Your task to perform on an android device: turn off notifications in google photos Image 0: 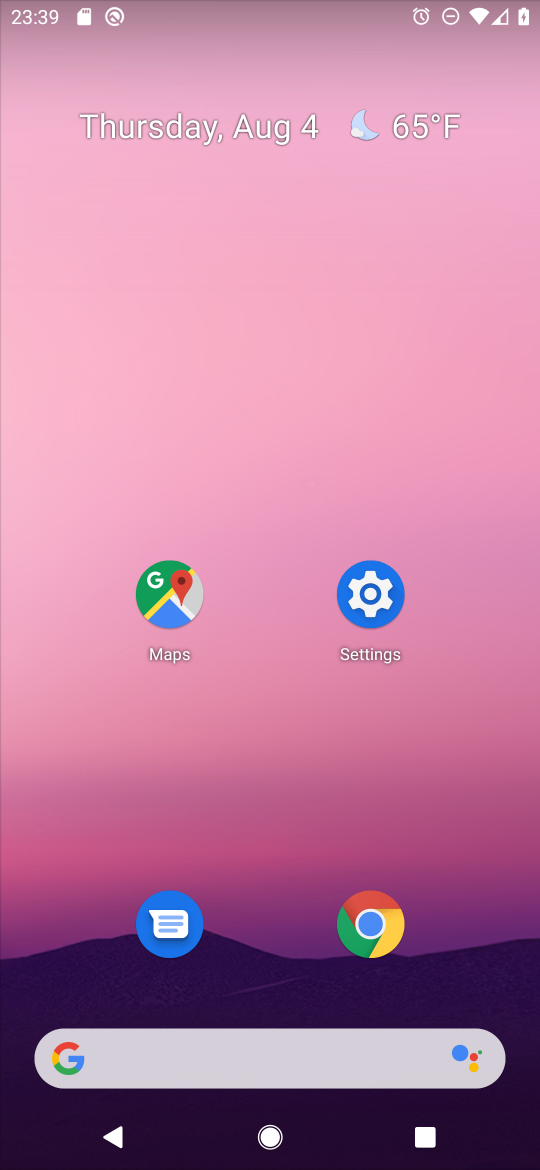
Step 0: press home button
Your task to perform on an android device: turn off notifications in google photos Image 1: 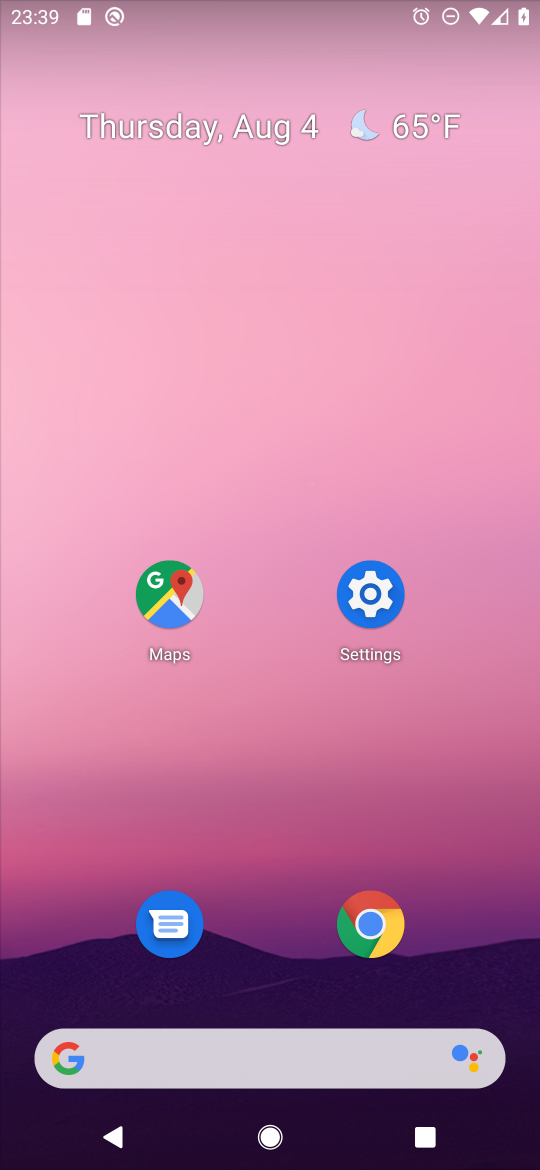
Step 1: drag from (276, 1052) to (462, 35)
Your task to perform on an android device: turn off notifications in google photos Image 2: 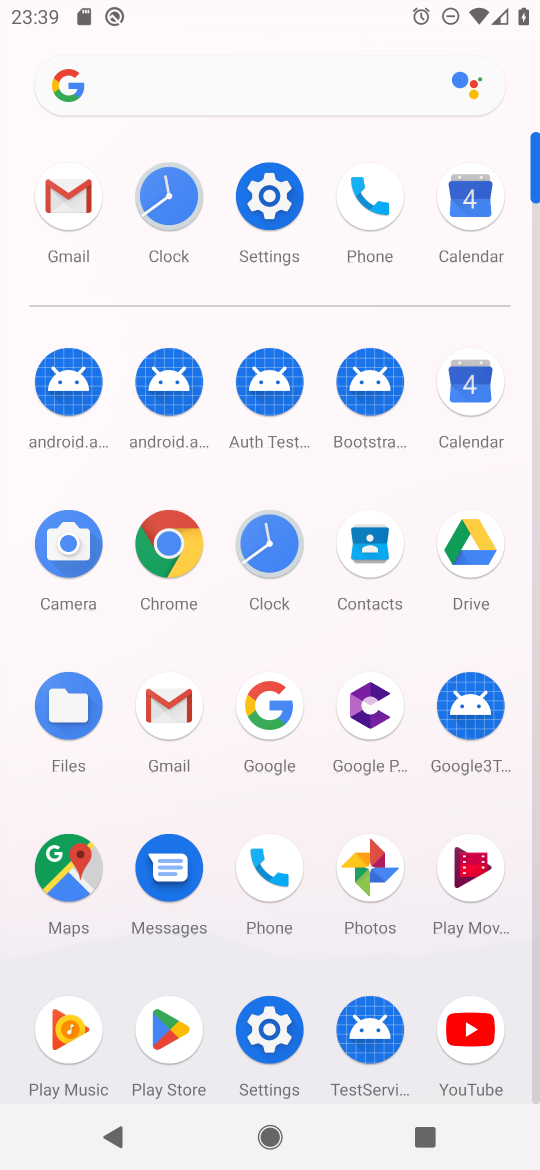
Step 2: click (364, 872)
Your task to perform on an android device: turn off notifications in google photos Image 3: 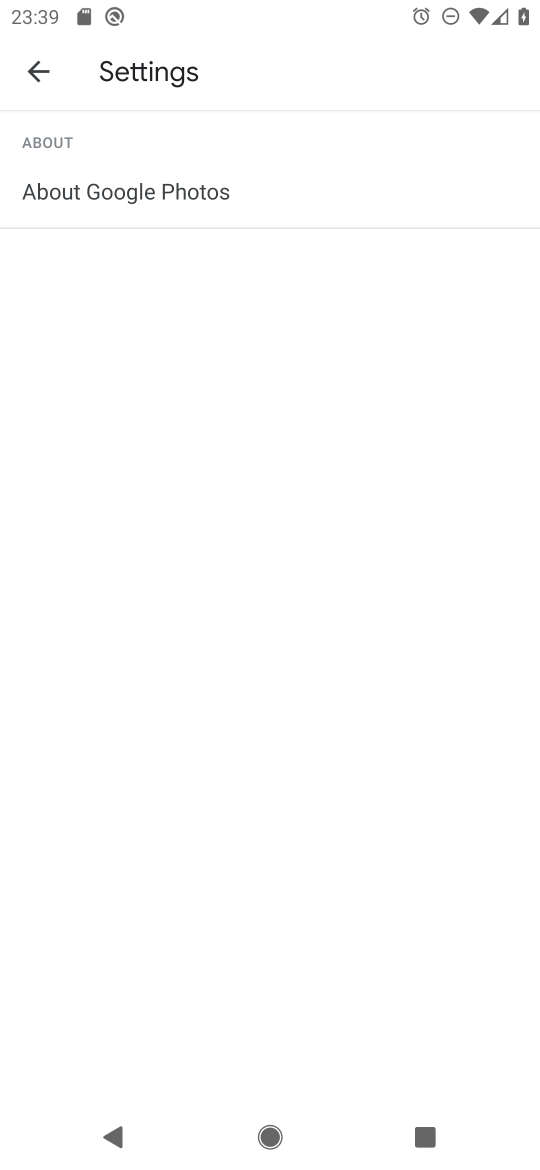
Step 3: click (41, 66)
Your task to perform on an android device: turn off notifications in google photos Image 4: 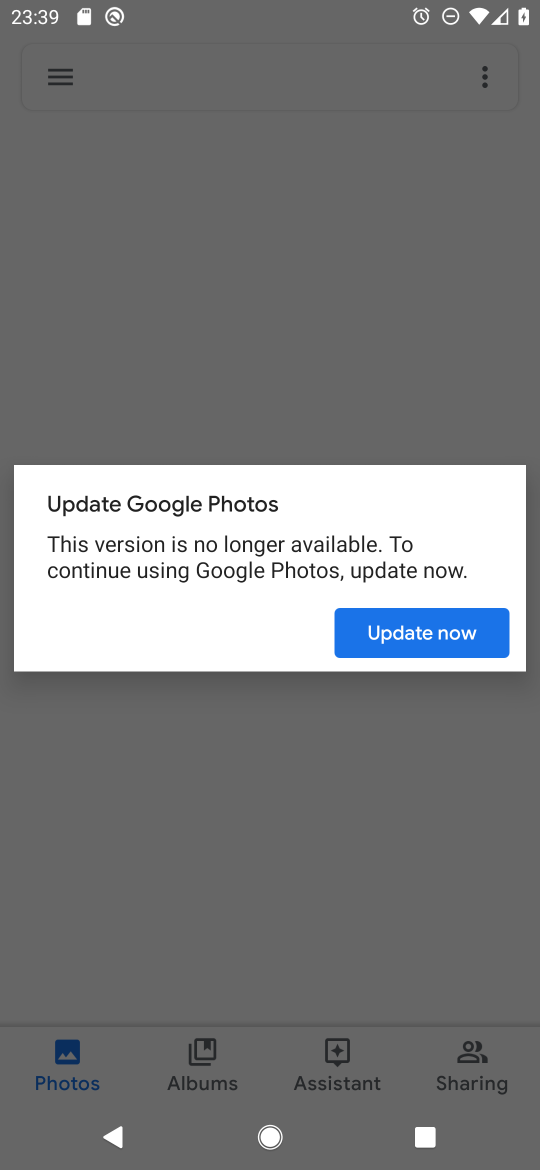
Step 4: click (380, 645)
Your task to perform on an android device: turn off notifications in google photos Image 5: 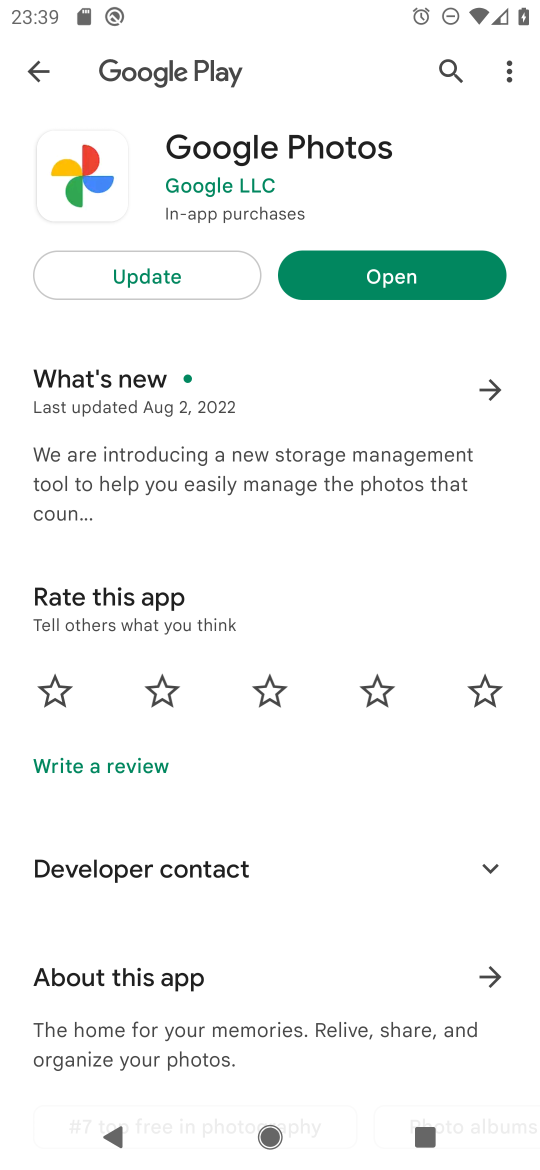
Step 5: click (173, 266)
Your task to perform on an android device: turn off notifications in google photos Image 6: 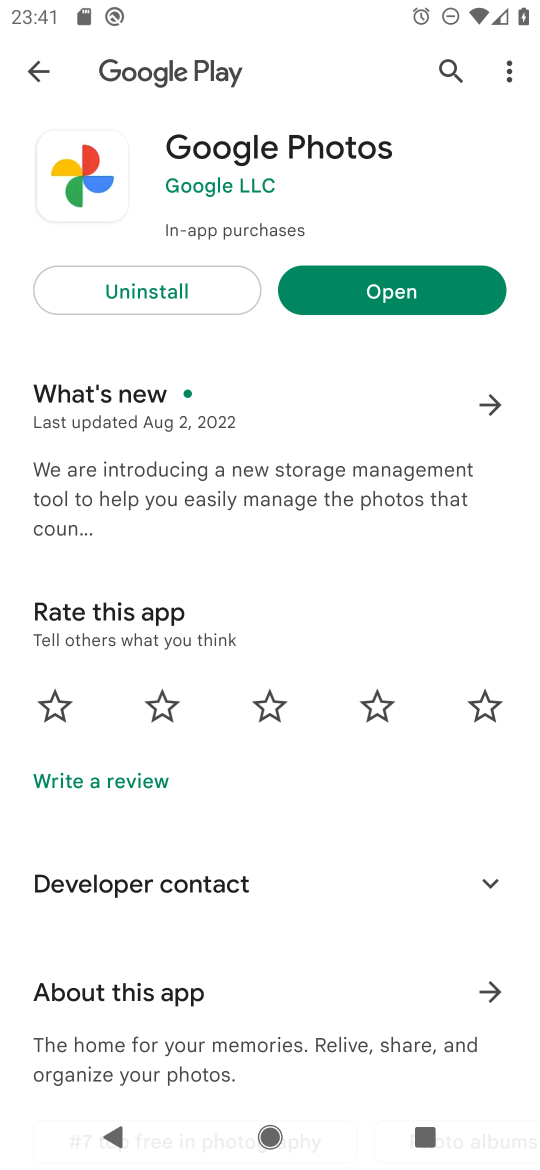
Step 6: click (423, 277)
Your task to perform on an android device: turn off notifications in google photos Image 7: 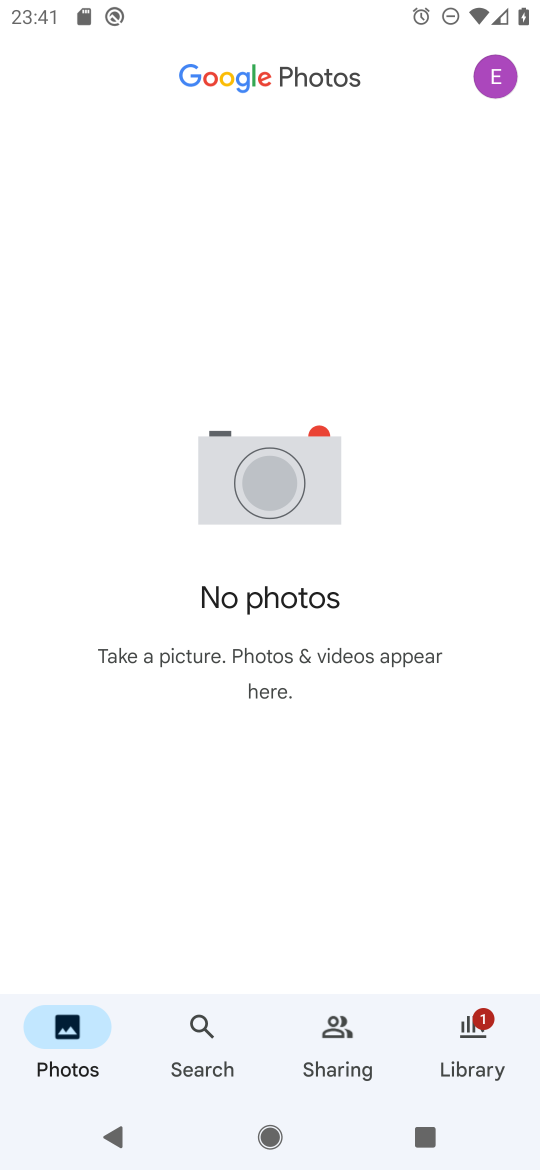
Step 7: click (499, 78)
Your task to perform on an android device: turn off notifications in google photos Image 8: 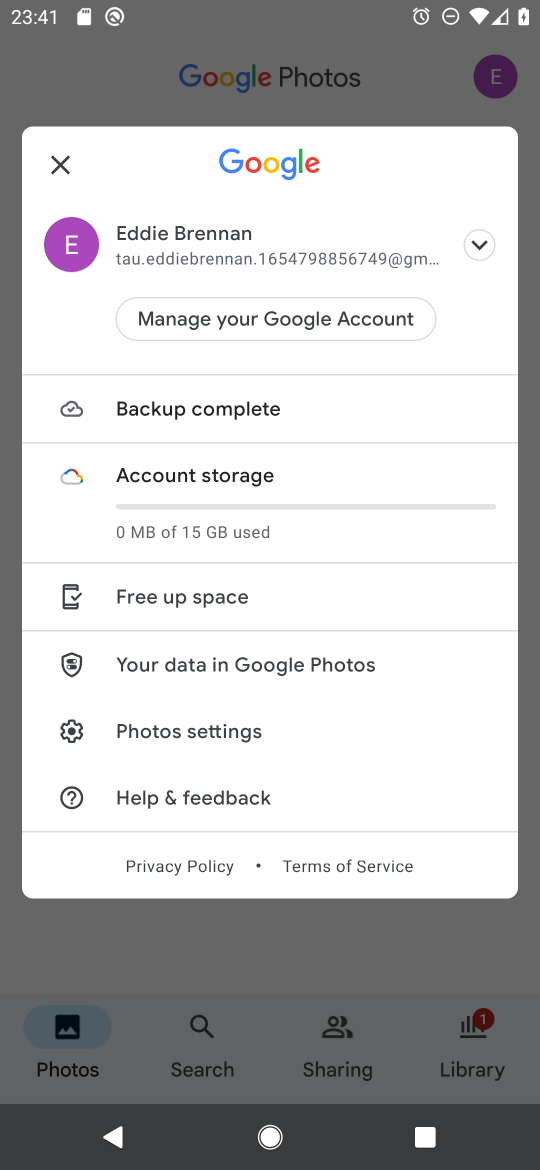
Step 8: click (227, 733)
Your task to perform on an android device: turn off notifications in google photos Image 9: 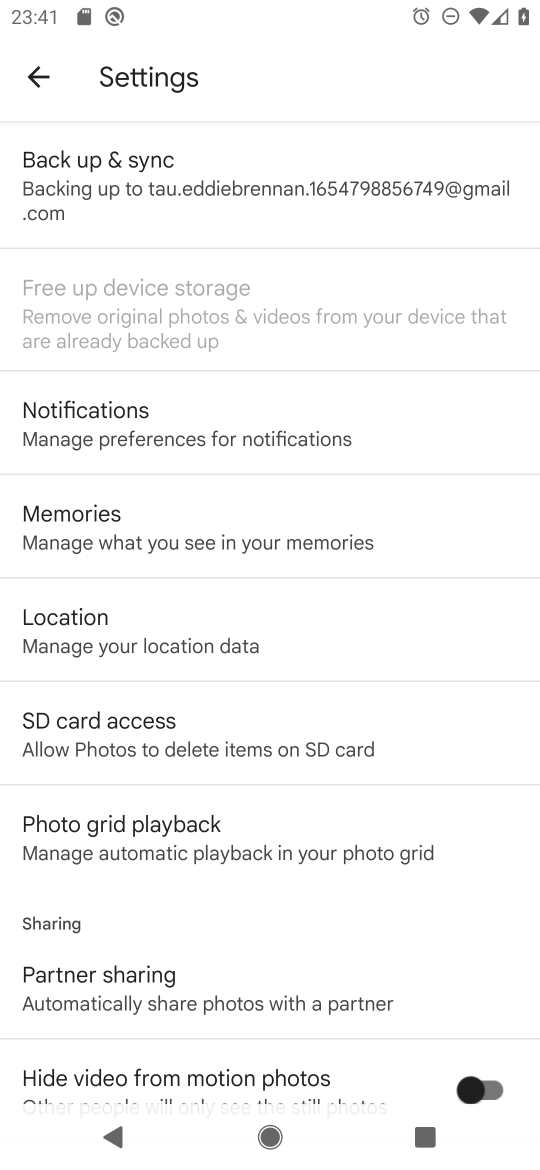
Step 9: click (213, 435)
Your task to perform on an android device: turn off notifications in google photos Image 10: 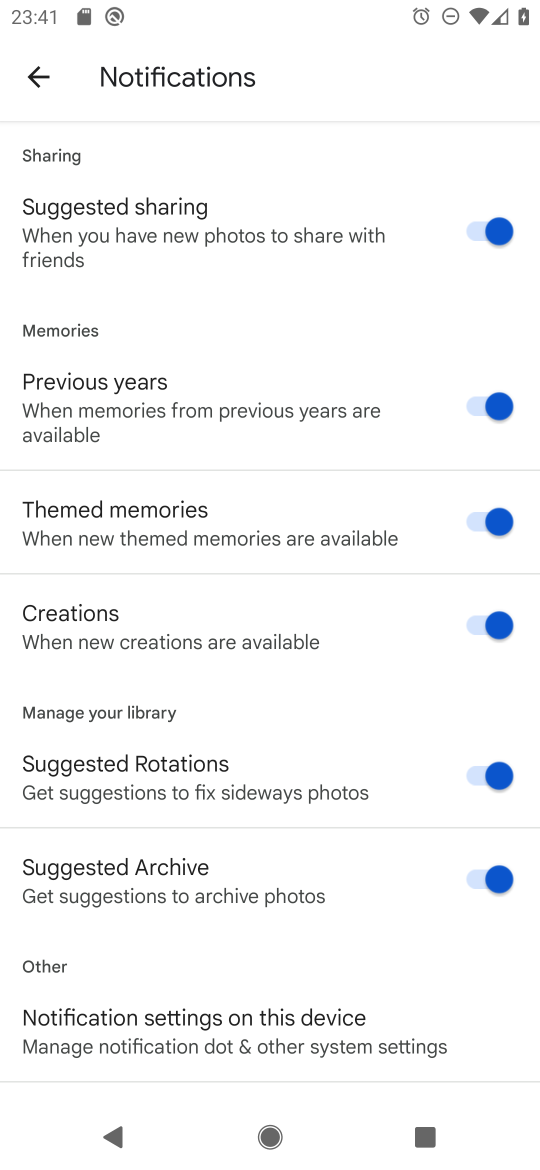
Step 10: drag from (217, 982) to (426, 208)
Your task to perform on an android device: turn off notifications in google photos Image 11: 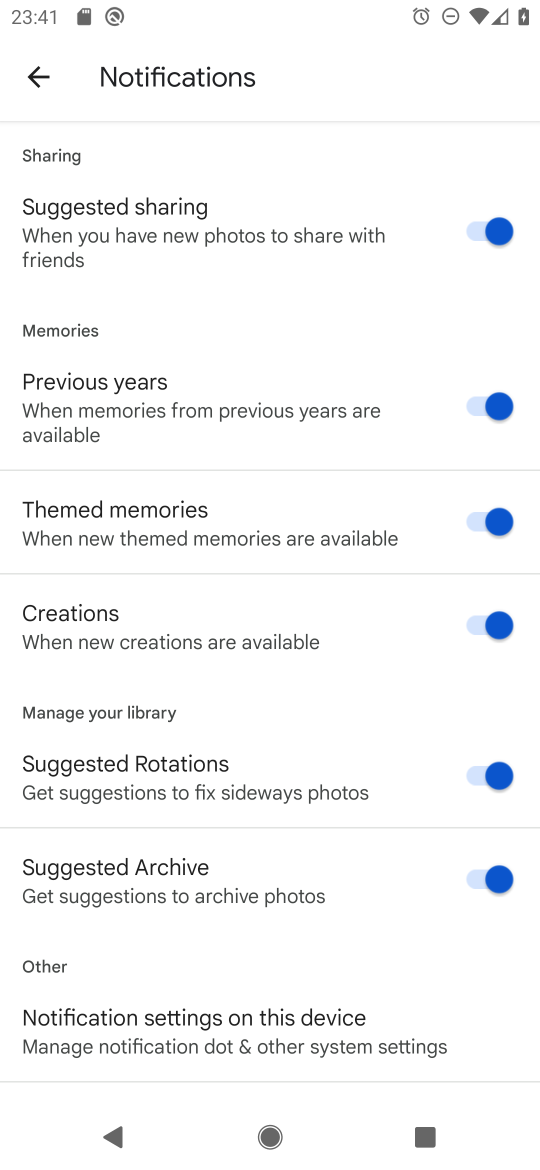
Step 11: click (215, 1015)
Your task to perform on an android device: turn off notifications in google photos Image 12: 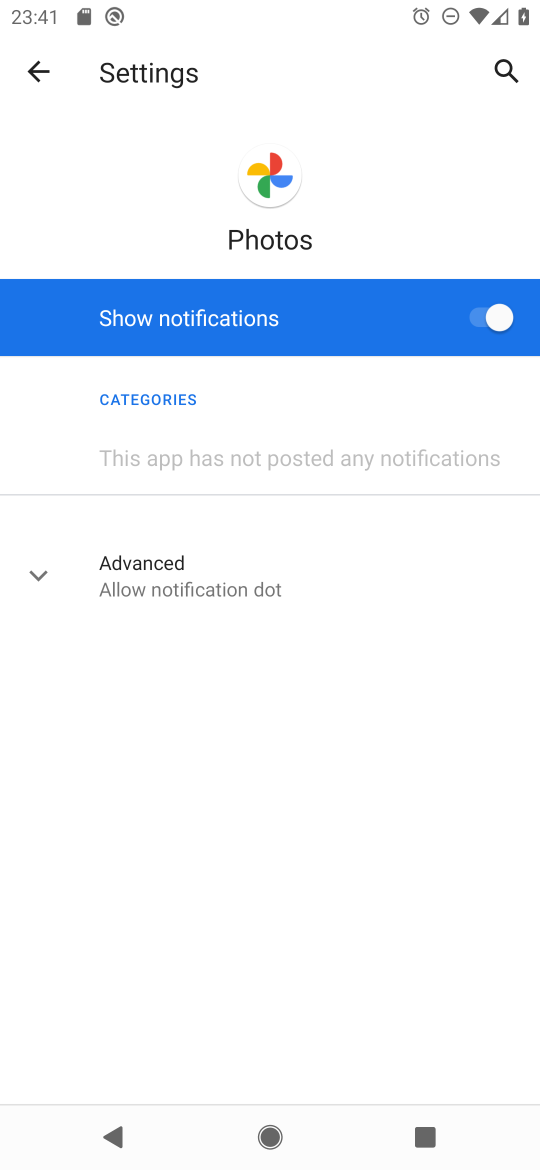
Step 12: click (481, 322)
Your task to perform on an android device: turn off notifications in google photos Image 13: 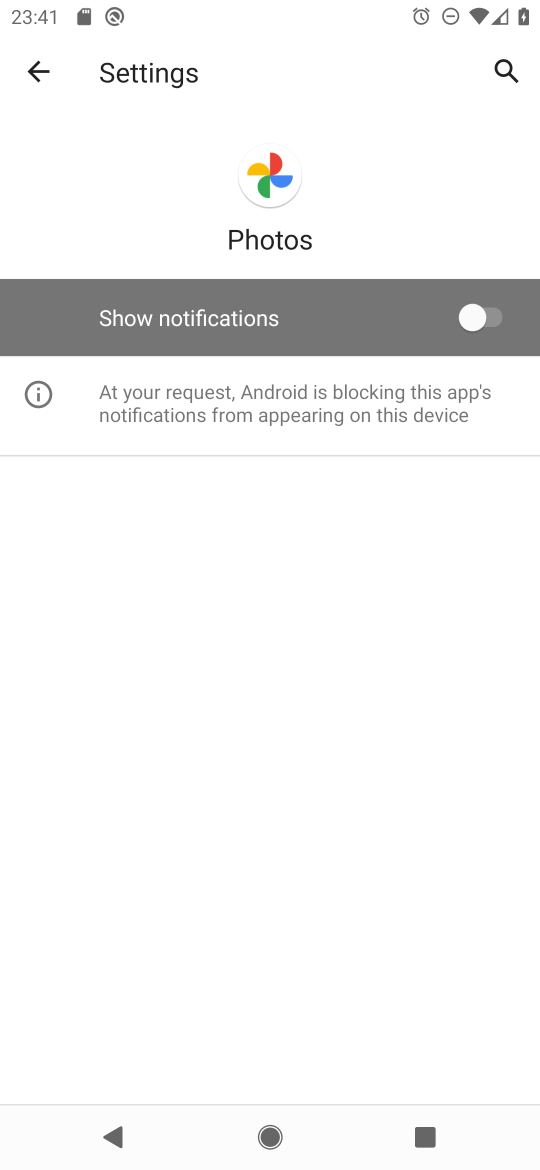
Step 13: task complete